Your task to perform on an android device: Go to display settings Image 0: 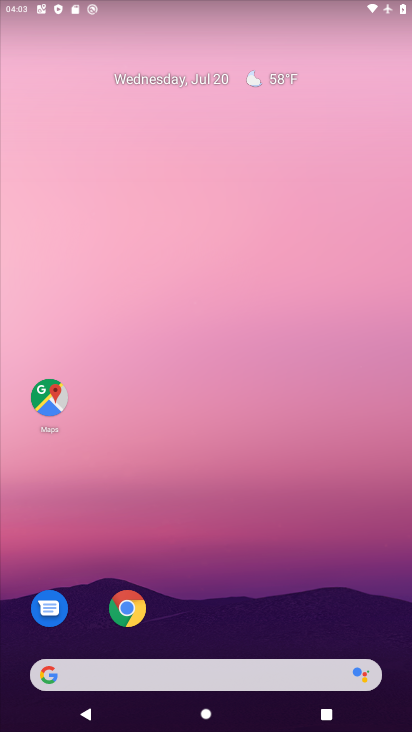
Step 0: drag from (321, 613) to (309, 127)
Your task to perform on an android device: Go to display settings Image 1: 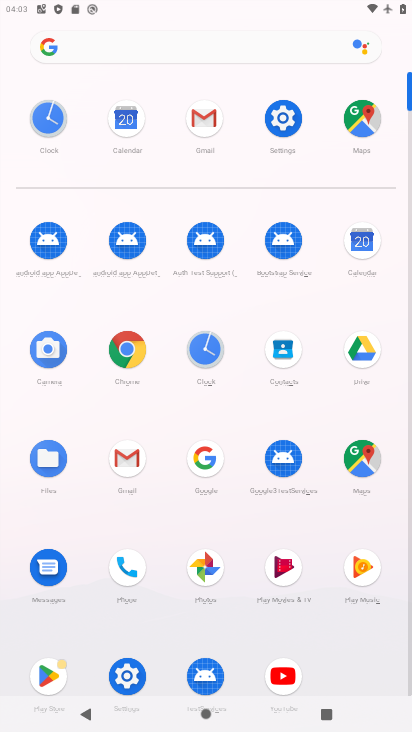
Step 1: click (284, 146)
Your task to perform on an android device: Go to display settings Image 2: 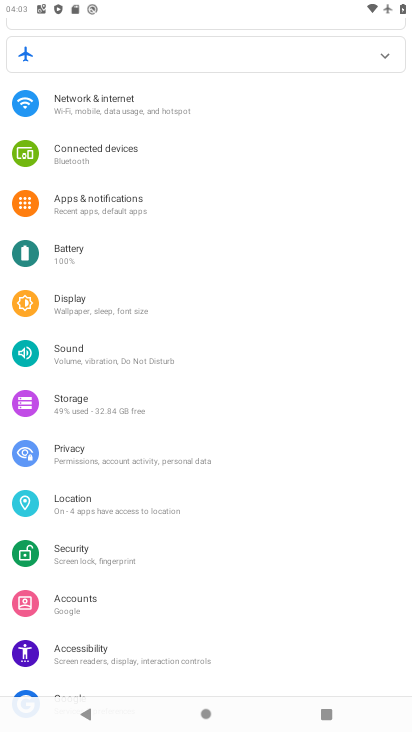
Step 2: click (90, 391)
Your task to perform on an android device: Go to display settings Image 3: 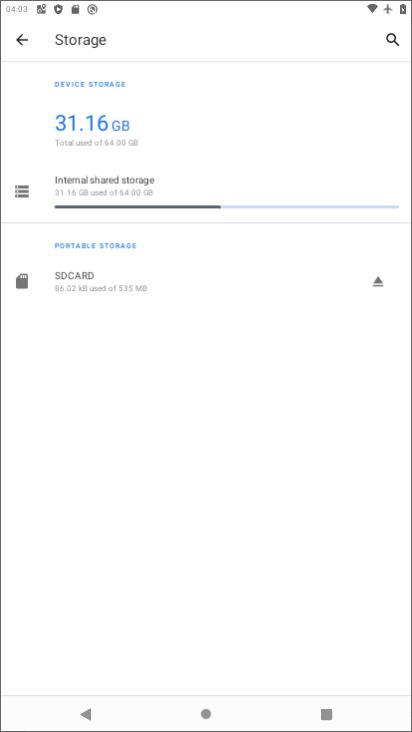
Step 3: task complete